Your task to perform on an android device: Open Google Image 0: 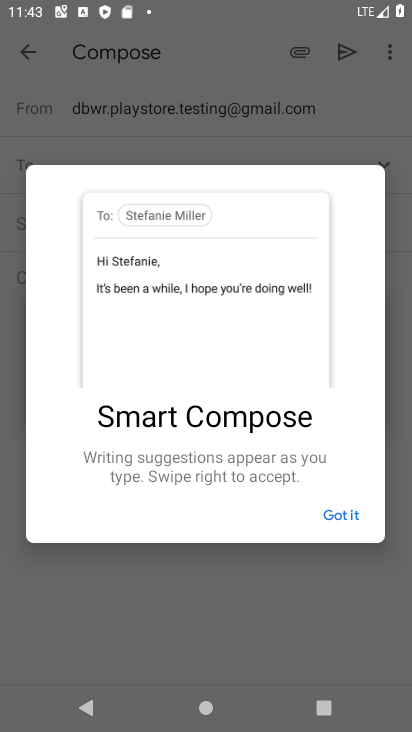
Step 0: press home button
Your task to perform on an android device: Open Google Image 1: 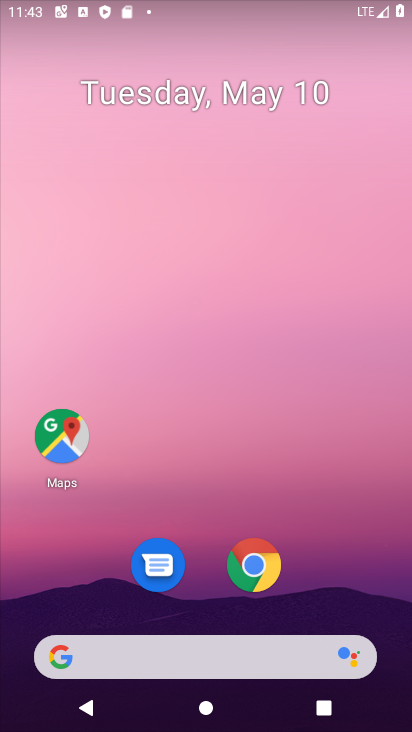
Step 1: click (50, 666)
Your task to perform on an android device: Open Google Image 2: 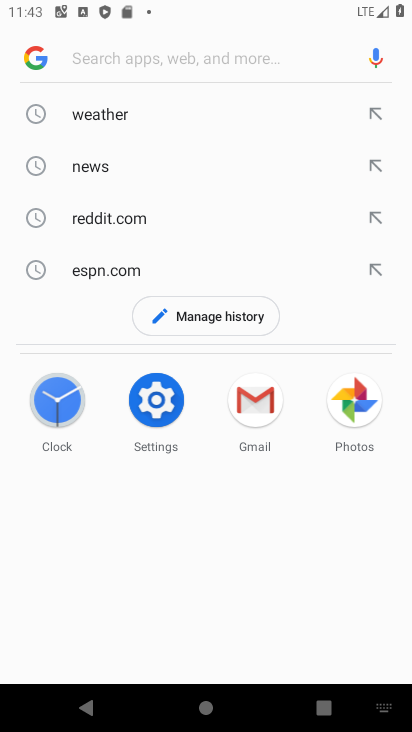
Step 2: click (41, 61)
Your task to perform on an android device: Open Google Image 3: 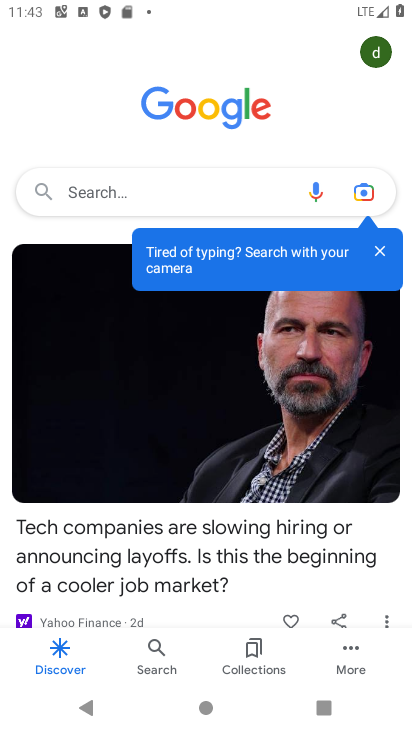
Step 3: task complete